Your task to perform on an android device: turn on airplane mode Image 0: 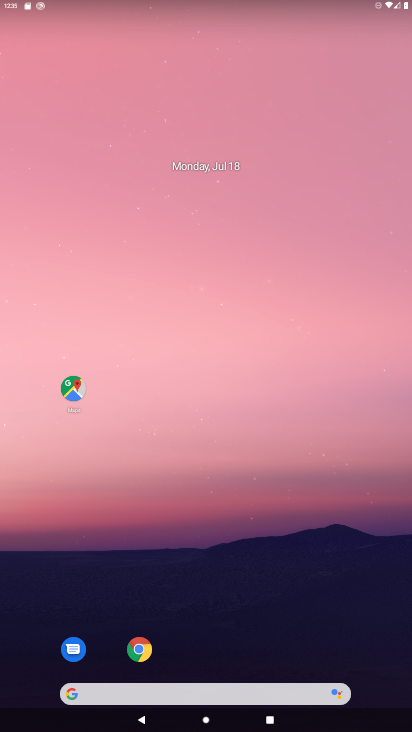
Step 0: drag from (341, 7) to (257, 602)
Your task to perform on an android device: turn on airplane mode Image 1: 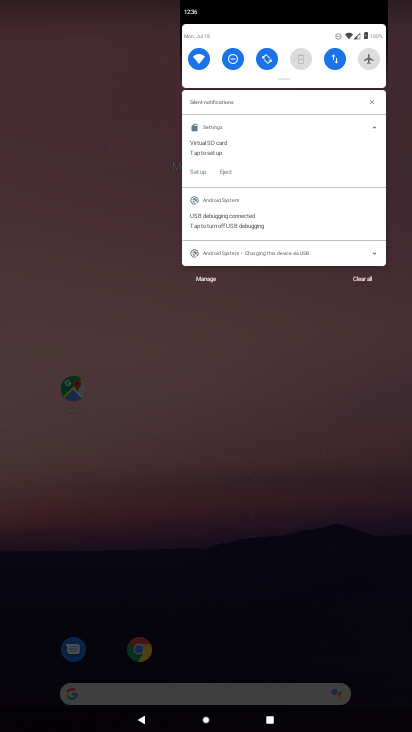
Step 1: click (364, 64)
Your task to perform on an android device: turn on airplane mode Image 2: 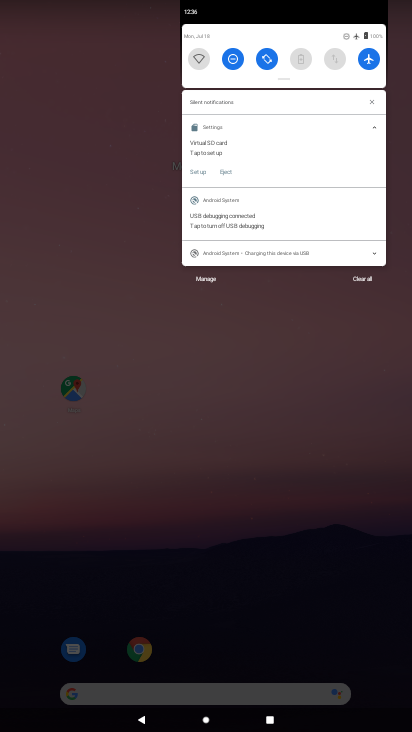
Step 2: task complete